Your task to perform on an android device: Open Youtube and go to the subscriptions tab Image 0: 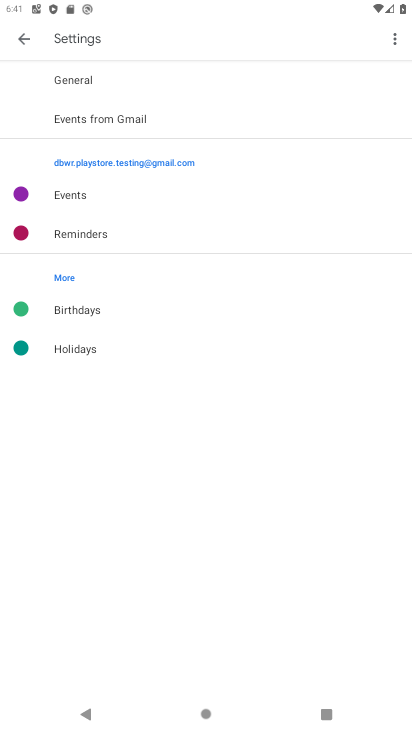
Step 0: press home button
Your task to perform on an android device: Open Youtube and go to the subscriptions tab Image 1: 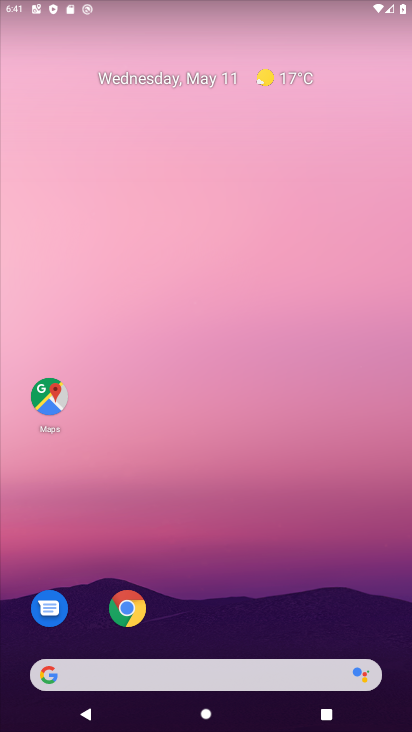
Step 1: drag from (216, 611) to (231, 52)
Your task to perform on an android device: Open Youtube and go to the subscriptions tab Image 2: 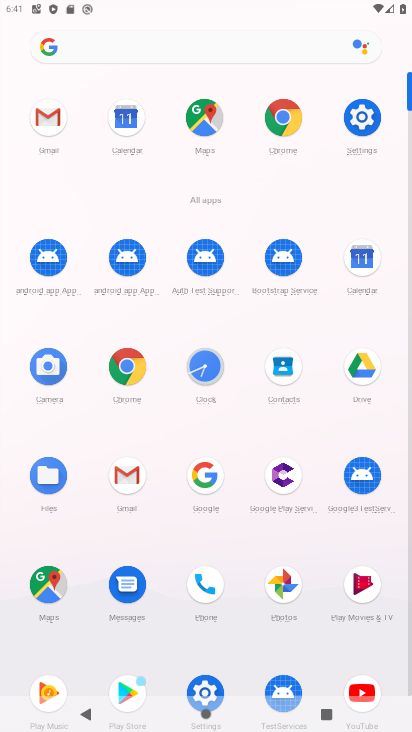
Step 2: click (365, 691)
Your task to perform on an android device: Open Youtube and go to the subscriptions tab Image 3: 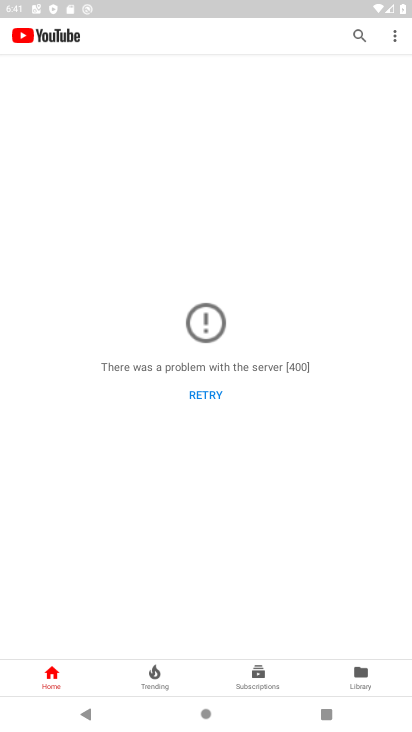
Step 3: click (213, 399)
Your task to perform on an android device: Open Youtube and go to the subscriptions tab Image 4: 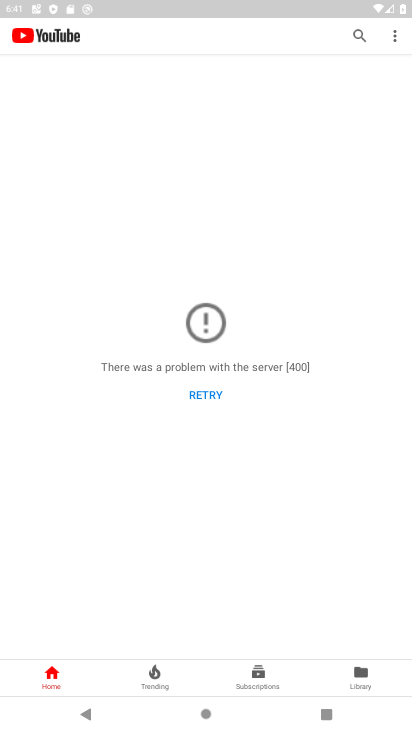
Step 4: click (263, 685)
Your task to perform on an android device: Open Youtube and go to the subscriptions tab Image 5: 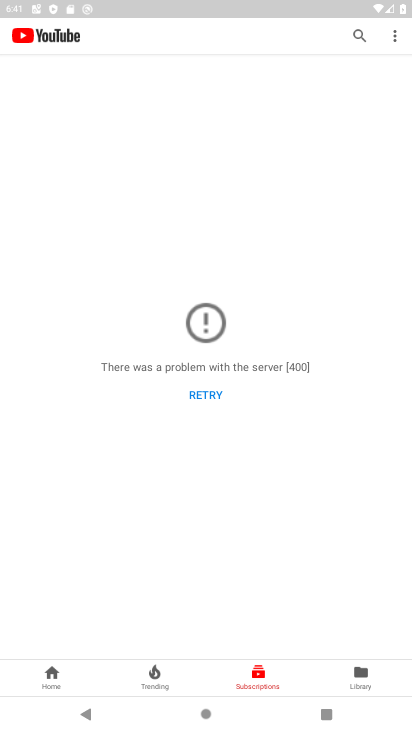
Step 5: task complete